Your task to perform on an android device: change alarm snooze length Image 0: 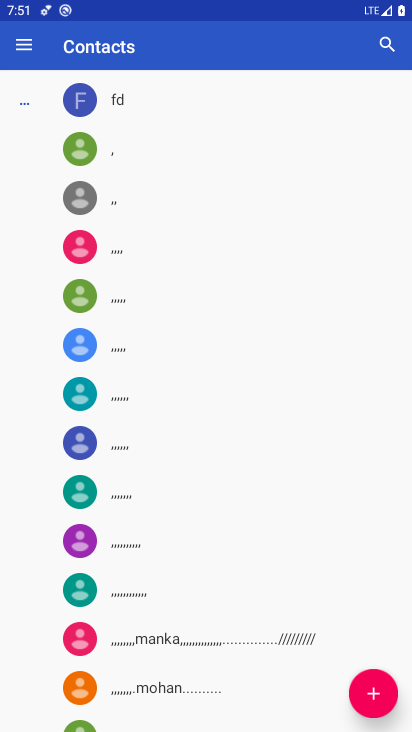
Step 0: press home button
Your task to perform on an android device: change alarm snooze length Image 1: 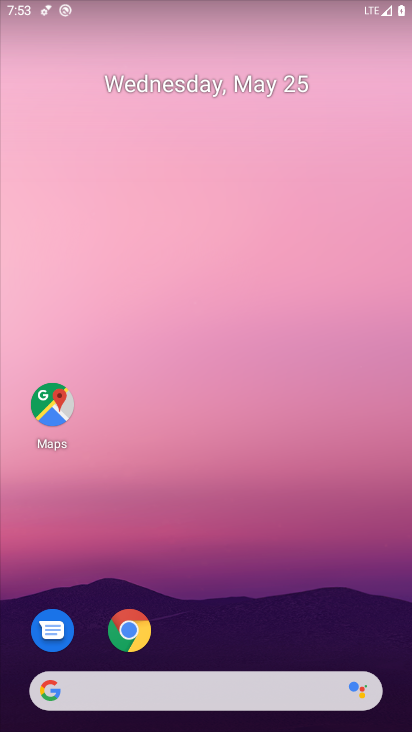
Step 1: drag from (229, 672) to (276, 146)
Your task to perform on an android device: change alarm snooze length Image 2: 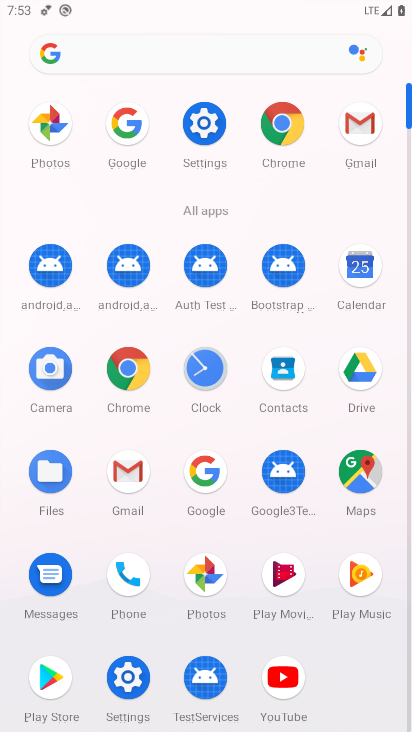
Step 2: click (199, 380)
Your task to perform on an android device: change alarm snooze length Image 3: 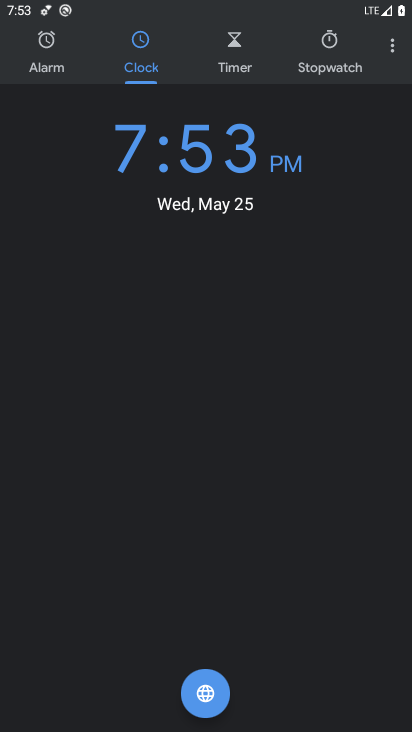
Step 3: click (397, 48)
Your task to perform on an android device: change alarm snooze length Image 4: 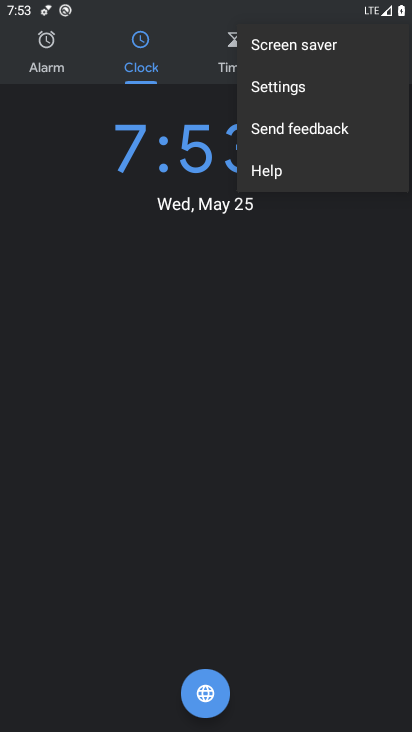
Step 4: click (289, 95)
Your task to perform on an android device: change alarm snooze length Image 5: 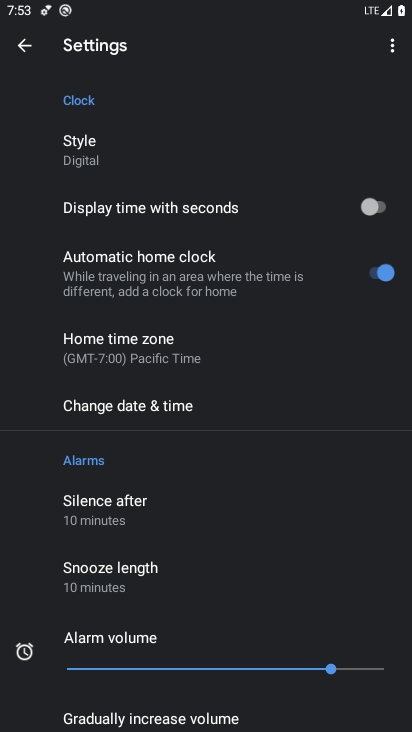
Step 5: click (151, 582)
Your task to perform on an android device: change alarm snooze length Image 6: 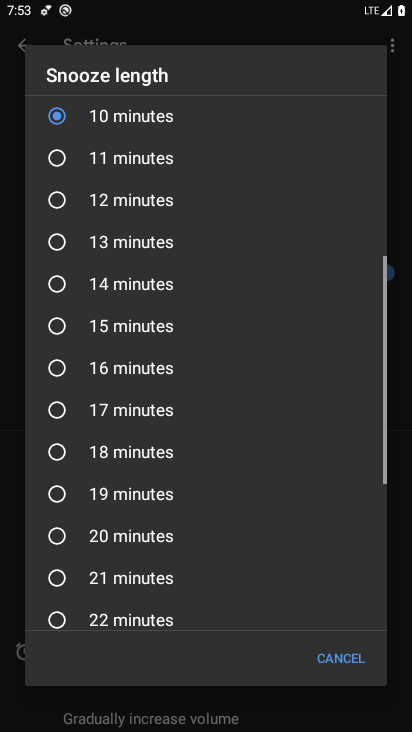
Step 6: click (101, 161)
Your task to perform on an android device: change alarm snooze length Image 7: 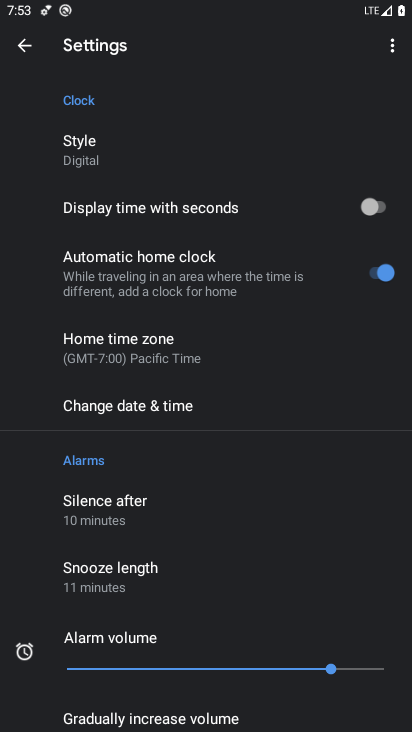
Step 7: task complete